Your task to perform on an android device: Open location settings Image 0: 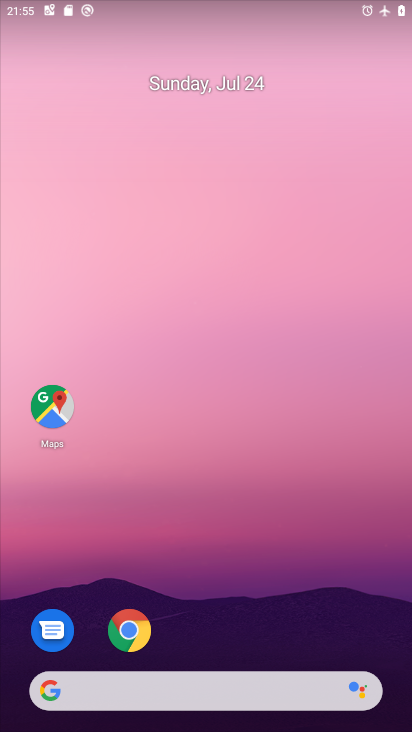
Step 0: drag from (209, 639) to (399, 21)
Your task to perform on an android device: Open location settings Image 1: 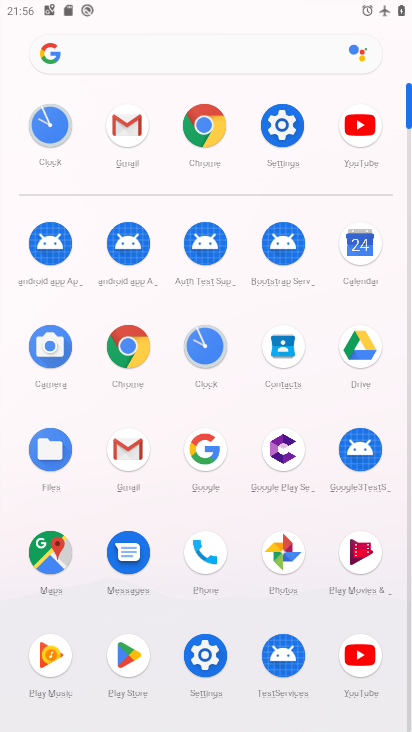
Step 1: click (282, 116)
Your task to perform on an android device: Open location settings Image 2: 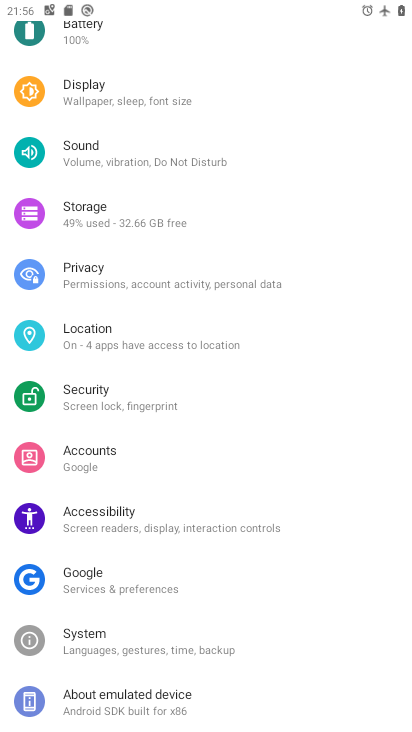
Step 2: click (102, 338)
Your task to perform on an android device: Open location settings Image 3: 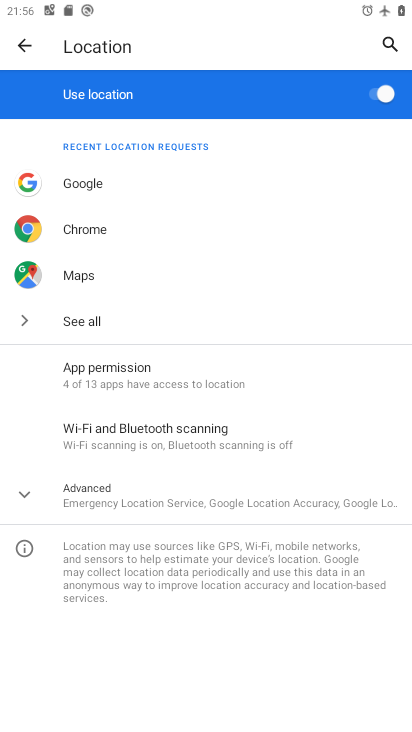
Step 3: task complete